Your task to perform on an android device: What's the weather? Image 0: 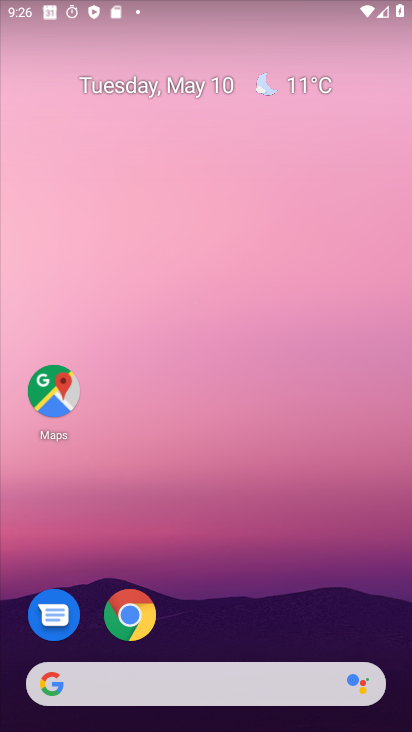
Step 0: click (311, 82)
Your task to perform on an android device: What's the weather? Image 1: 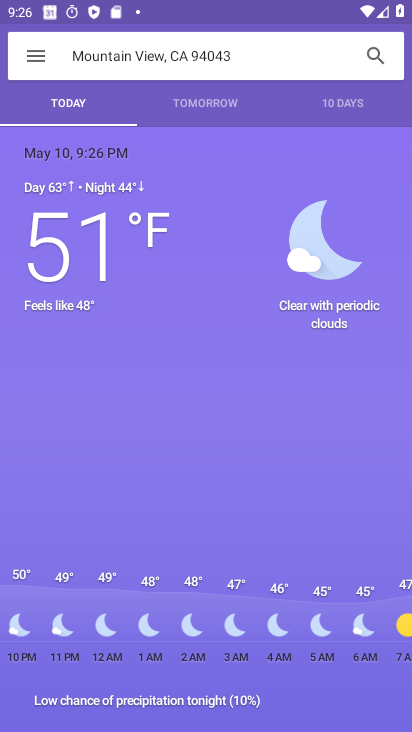
Step 1: task complete